Your task to perform on an android device: Go to Wikipedia Image 0: 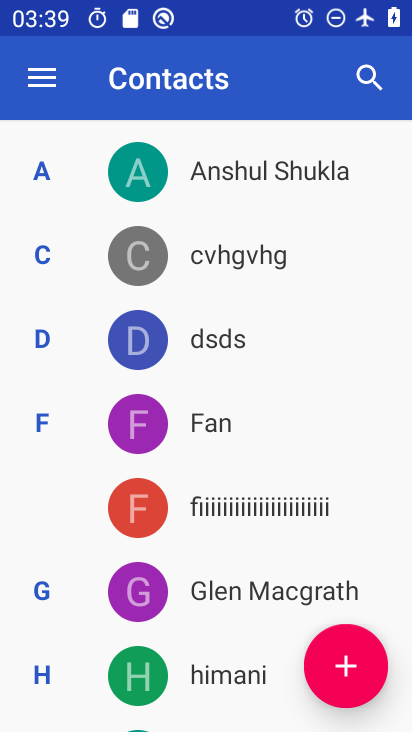
Step 0: press home button
Your task to perform on an android device: Go to Wikipedia Image 1: 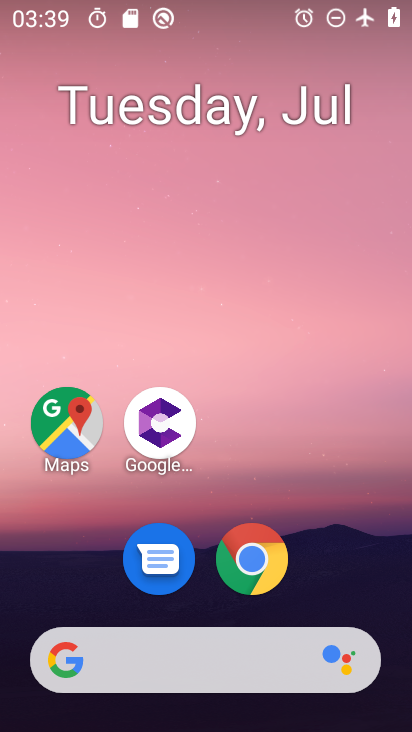
Step 1: drag from (366, 550) to (375, 135)
Your task to perform on an android device: Go to Wikipedia Image 2: 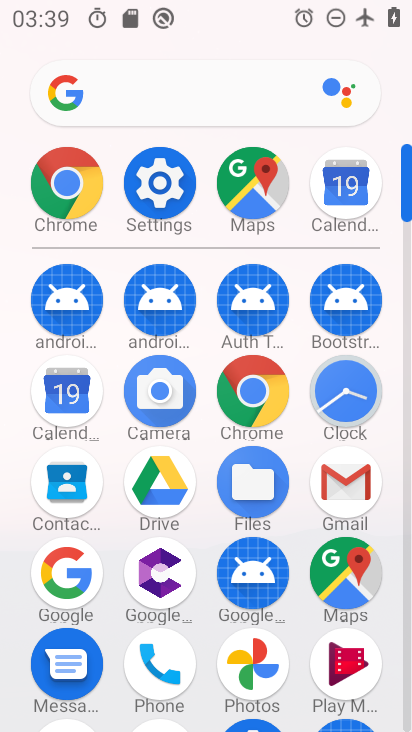
Step 2: click (268, 387)
Your task to perform on an android device: Go to Wikipedia Image 3: 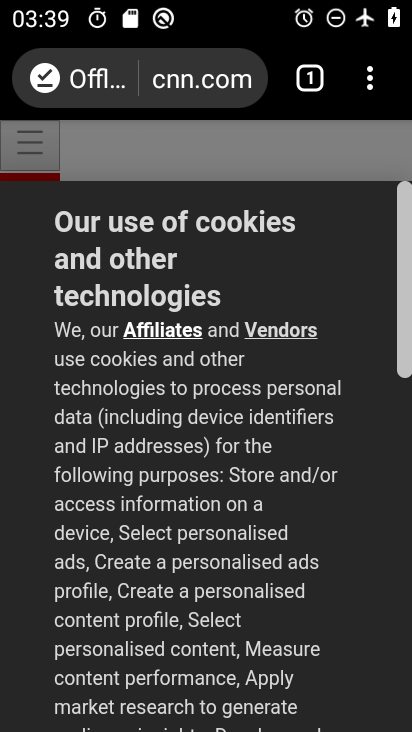
Step 3: click (219, 85)
Your task to perform on an android device: Go to Wikipedia Image 4: 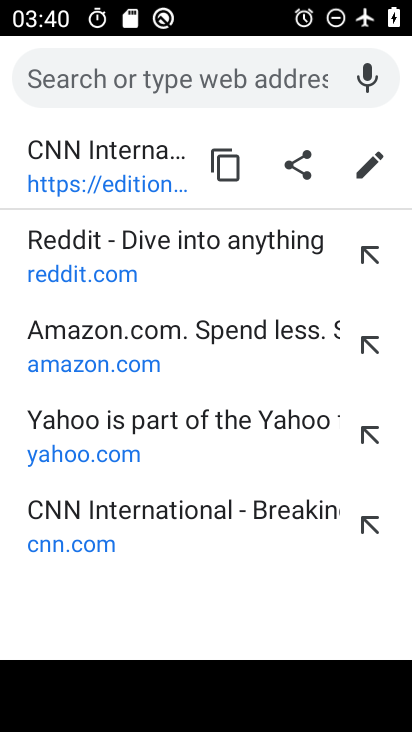
Step 4: type "wikipedia"
Your task to perform on an android device: Go to Wikipedia Image 5: 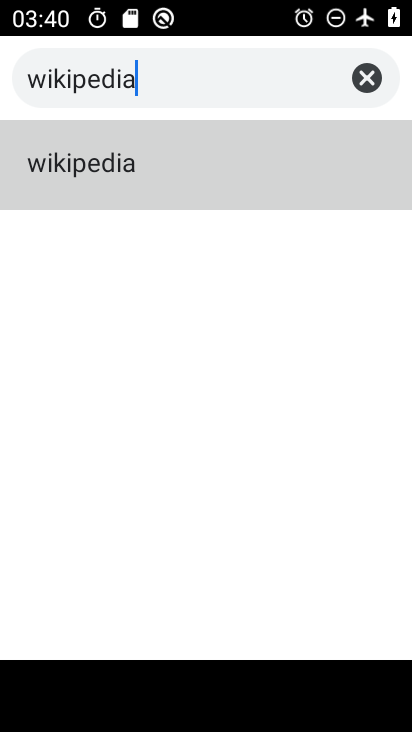
Step 5: click (270, 193)
Your task to perform on an android device: Go to Wikipedia Image 6: 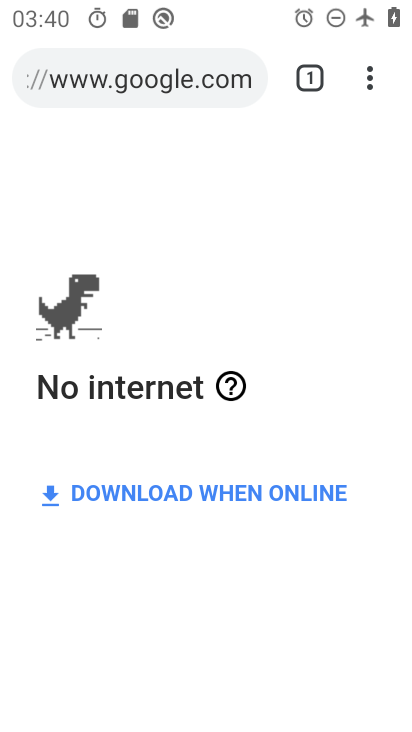
Step 6: task complete